Your task to perform on an android device: check android version Image 0: 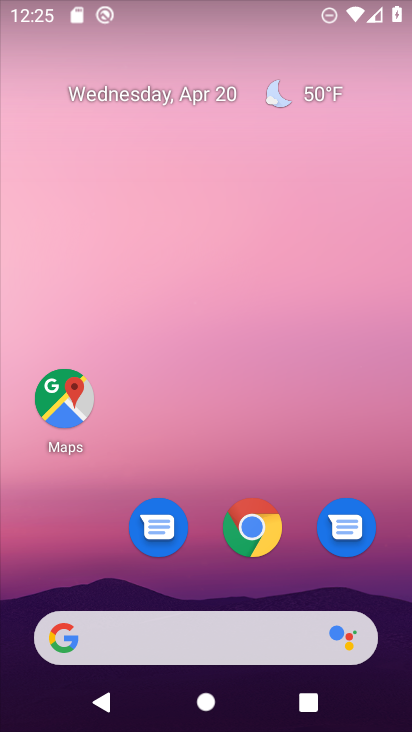
Step 0: drag from (391, 561) to (411, 640)
Your task to perform on an android device: check android version Image 1: 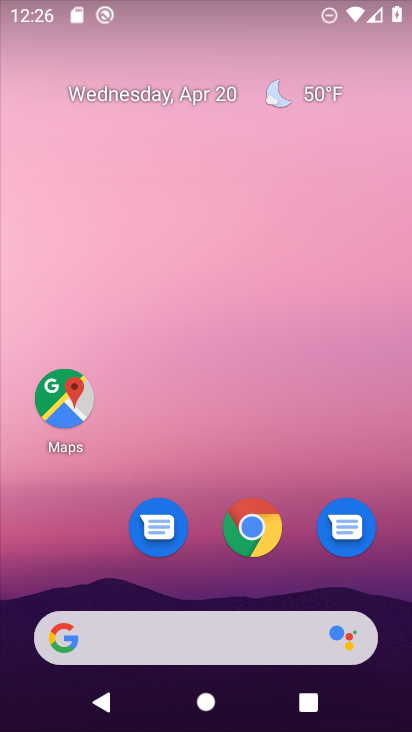
Step 1: click (387, 581)
Your task to perform on an android device: check android version Image 2: 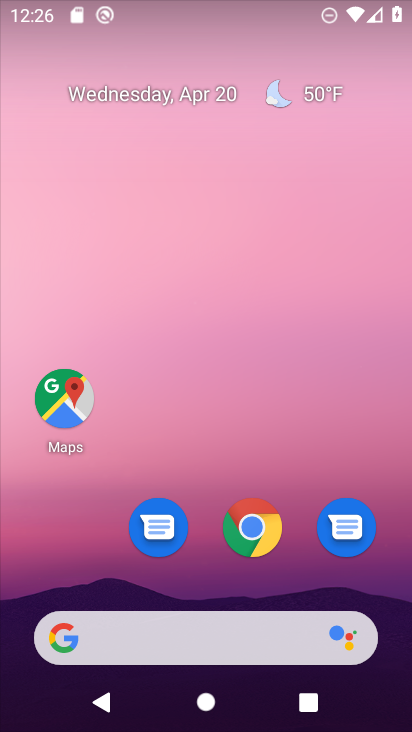
Step 2: drag from (376, 551) to (395, 13)
Your task to perform on an android device: check android version Image 3: 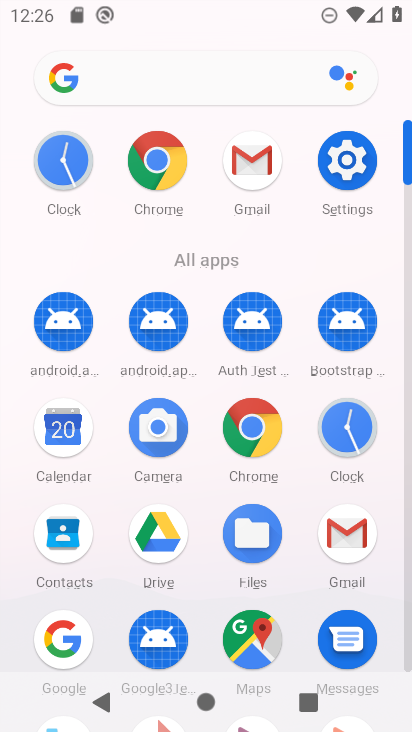
Step 3: click (339, 165)
Your task to perform on an android device: check android version Image 4: 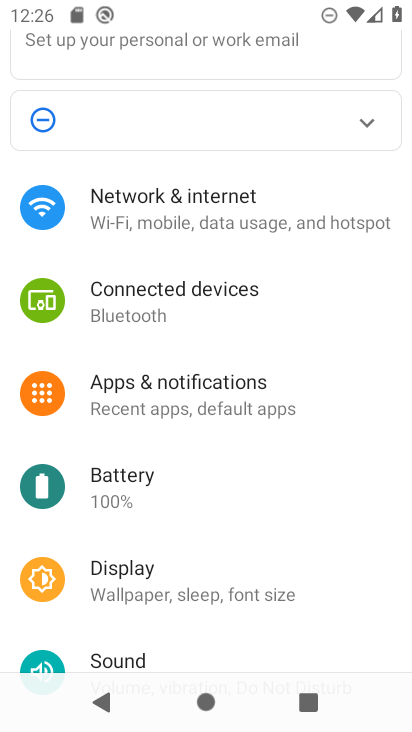
Step 4: drag from (362, 602) to (333, 221)
Your task to perform on an android device: check android version Image 5: 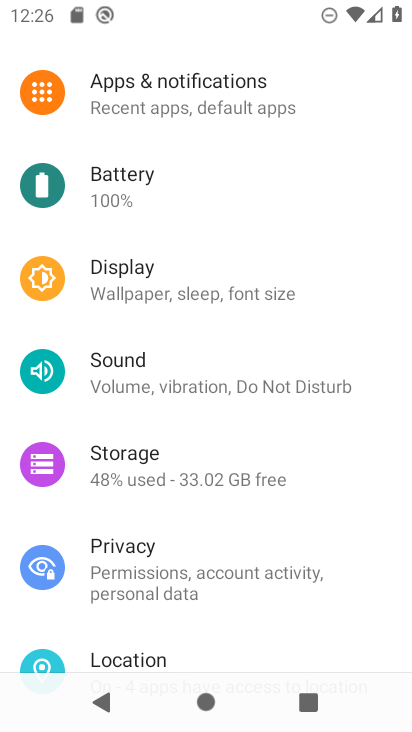
Step 5: drag from (204, 573) to (212, 246)
Your task to perform on an android device: check android version Image 6: 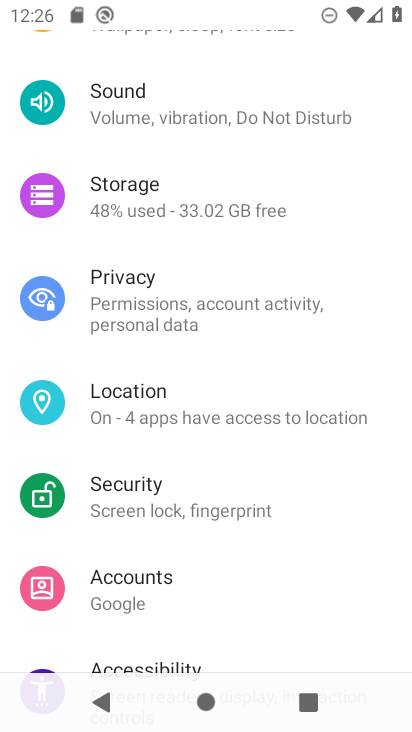
Step 6: drag from (296, 611) to (307, 339)
Your task to perform on an android device: check android version Image 7: 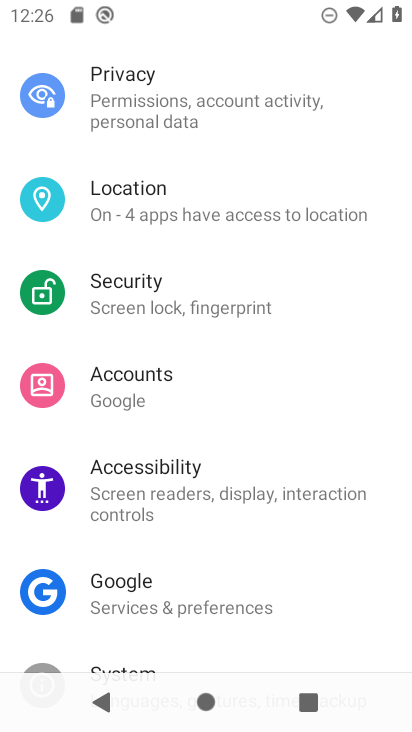
Step 7: drag from (304, 586) to (297, 283)
Your task to perform on an android device: check android version Image 8: 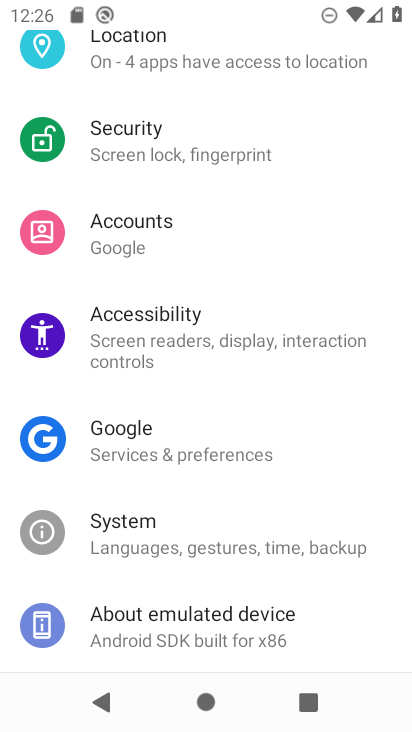
Step 8: click (216, 619)
Your task to perform on an android device: check android version Image 9: 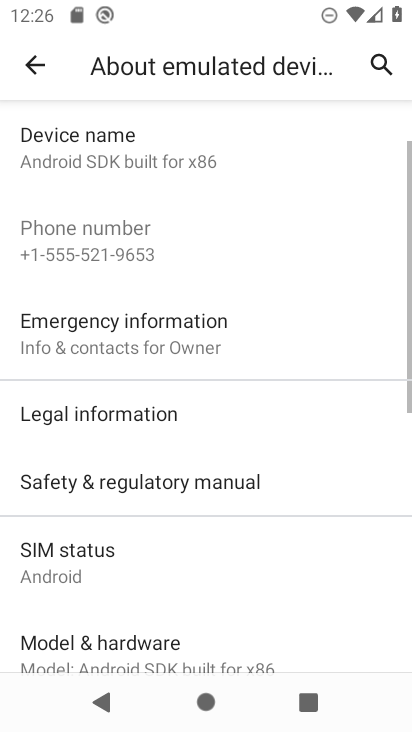
Step 9: drag from (181, 571) to (178, 298)
Your task to perform on an android device: check android version Image 10: 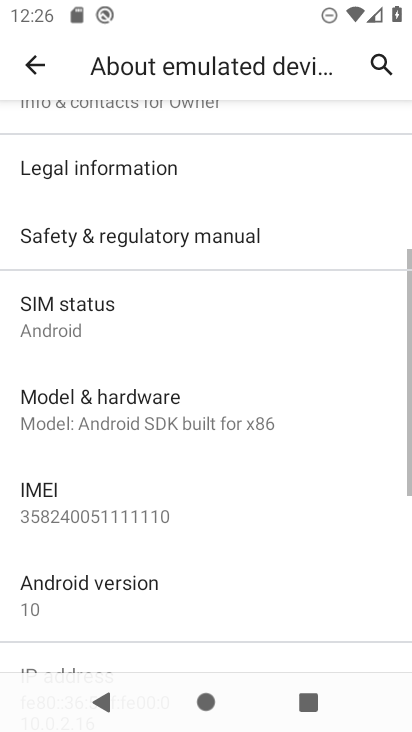
Step 10: click (107, 582)
Your task to perform on an android device: check android version Image 11: 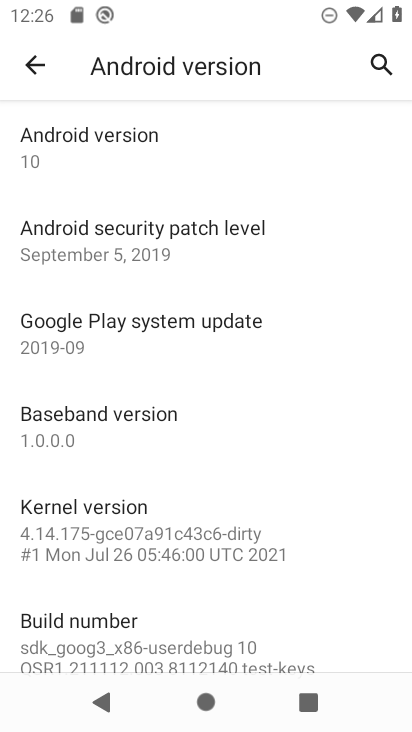
Step 11: task complete